Your task to perform on an android device: allow cookies in the chrome app Image 0: 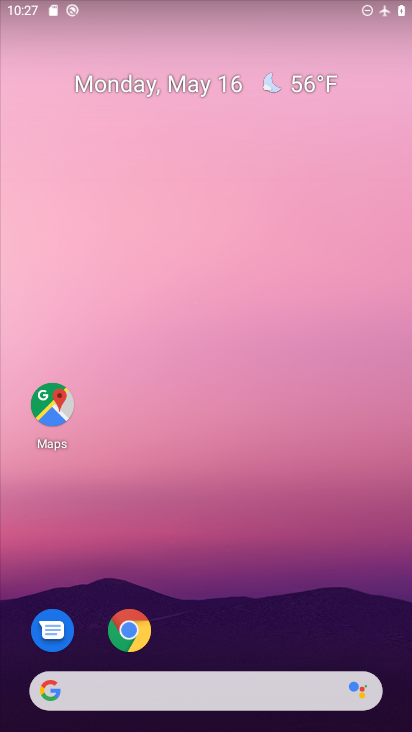
Step 0: drag from (278, 601) to (281, 526)
Your task to perform on an android device: allow cookies in the chrome app Image 1: 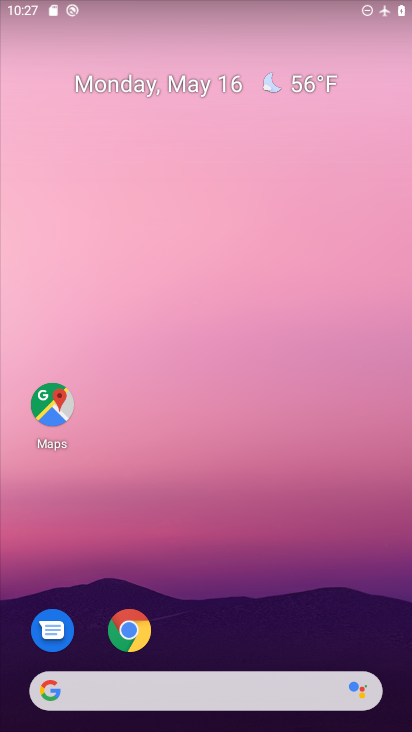
Step 1: click (136, 629)
Your task to perform on an android device: allow cookies in the chrome app Image 2: 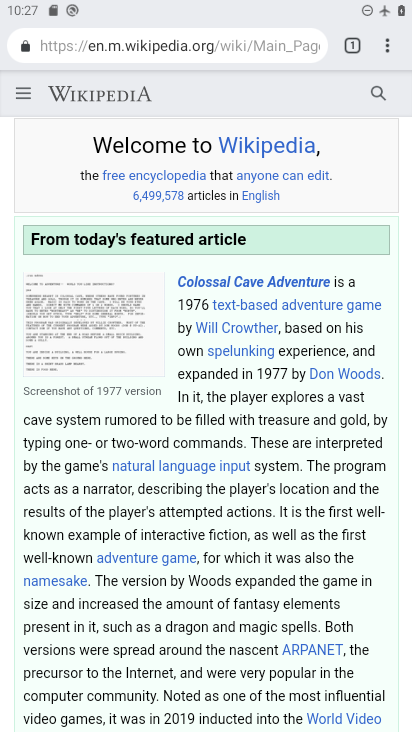
Step 2: click (384, 47)
Your task to perform on an android device: allow cookies in the chrome app Image 3: 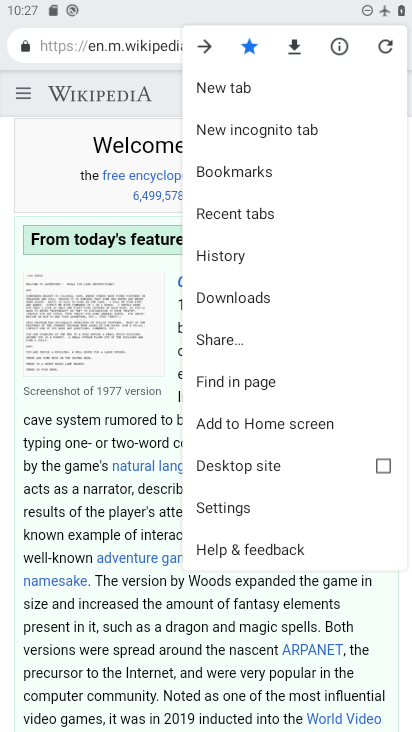
Step 3: click (245, 508)
Your task to perform on an android device: allow cookies in the chrome app Image 4: 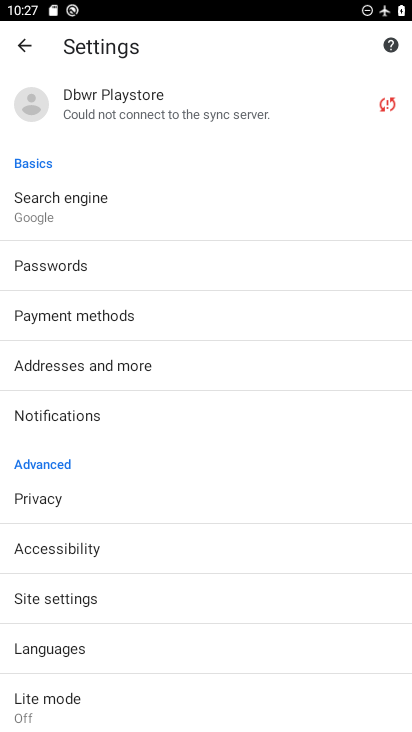
Step 4: click (146, 595)
Your task to perform on an android device: allow cookies in the chrome app Image 5: 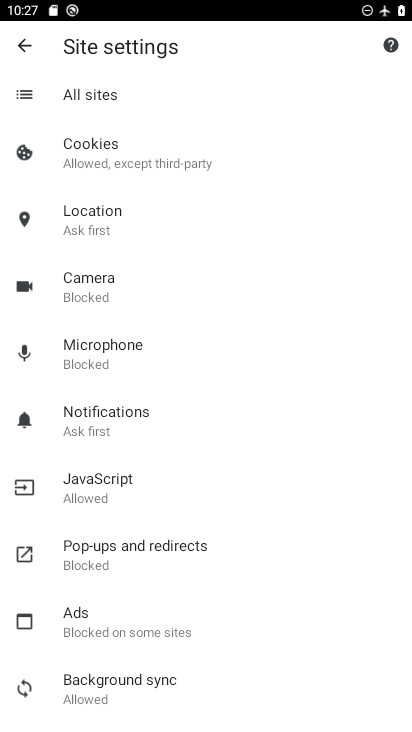
Step 5: click (271, 146)
Your task to perform on an android device: allow cookies in the chrome app Image 6: 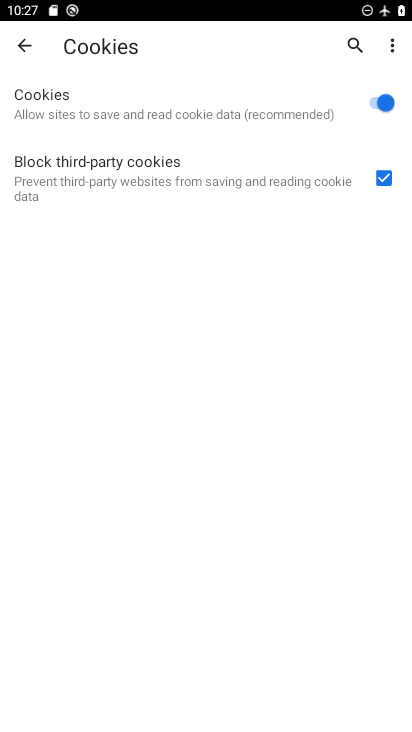
Step 6: task complete